Your task to perform on an android device: Go to wifi settings Image 0: 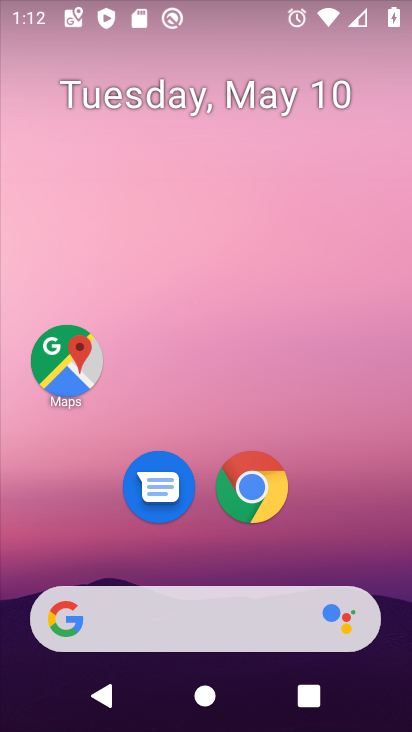
Step 0: drag from (342, 539) to (283, 146)
Your task to perform on an android device: Go to wifi settings Image 1: 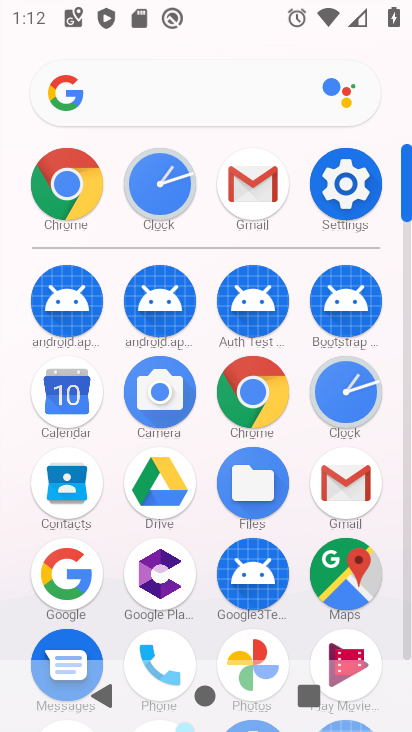
Step 1: click (352, 146)
Your task to perform on an android device: Go to wifi settings Image 2: 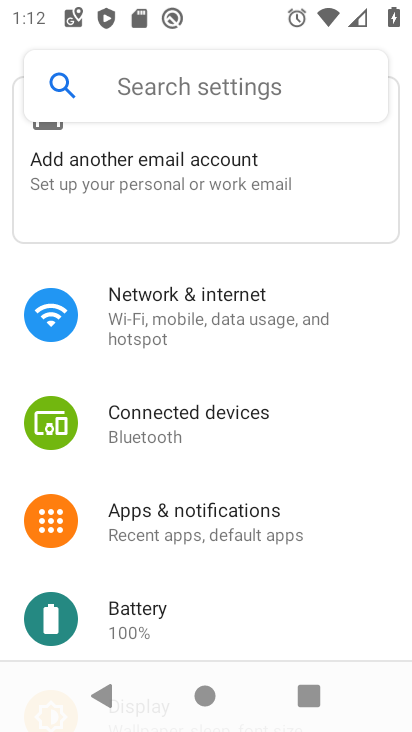
Step 2: click (295, 293)
Your task to perform on an android device: Go to wifi settings Image 3: 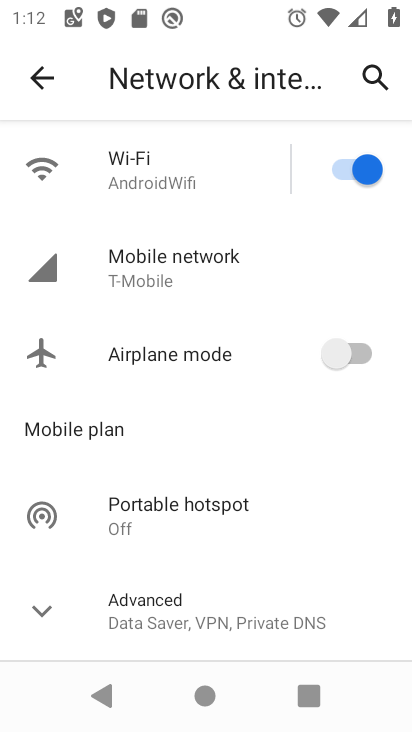
Step 3: task complete